Your task to perform on an android device: Is it going to rain tomorrow? Image 0: 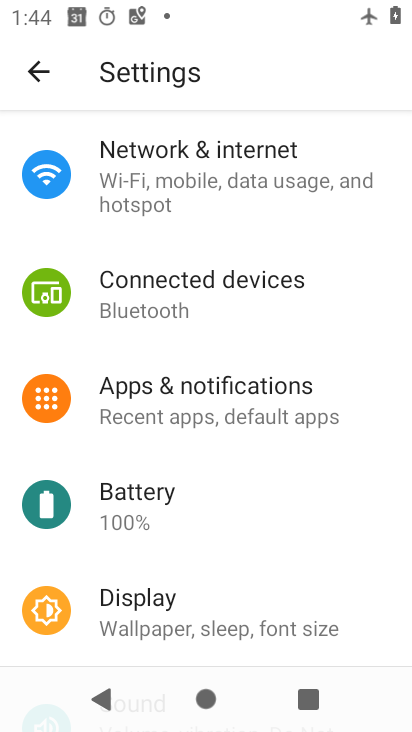
Step 0: press home button
Your task to perform on an android device: Is it going to rain tomorrow? Image 1: 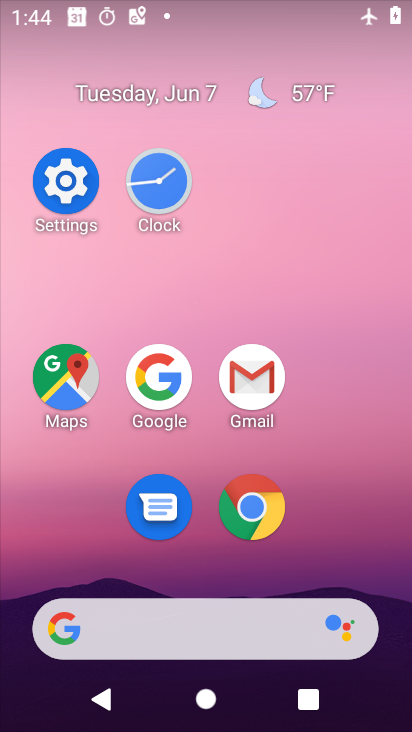
Step 1: click (176, 399)
Your task to perform on an android device: Is it going to rain tomorrow? Image 2: 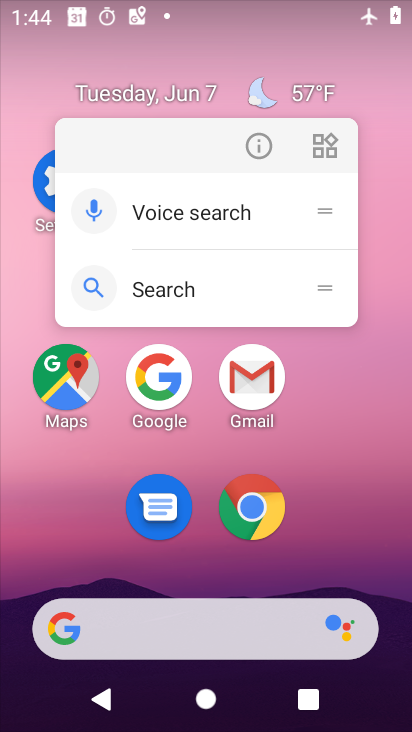
Step 2: click (174, 368)
Your task to perform on an android device: Is it going to rain tomorrow? Image 3: 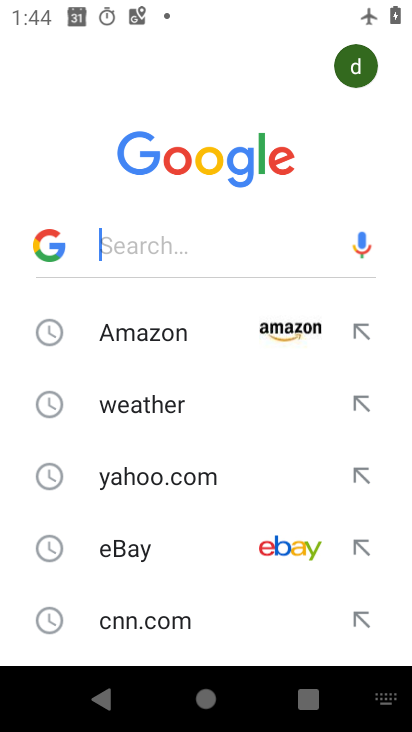
Step 3: click (159, 398)
Your task to perform on an android device: Is it going to rain tomorrow? Image 4: 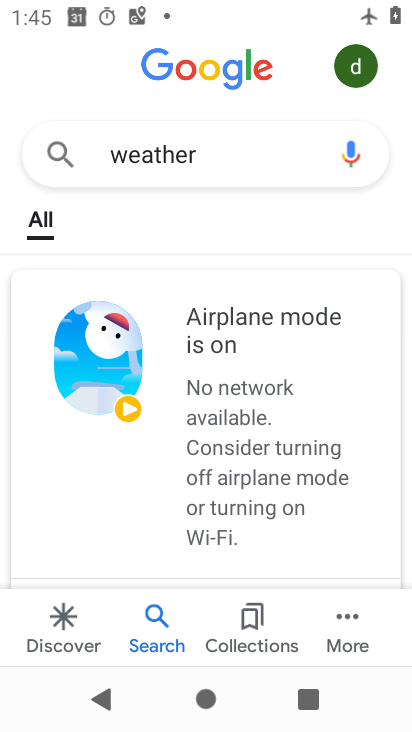
Step 4: task complete